Your task to perform on an android device: change the clock style Image 0: 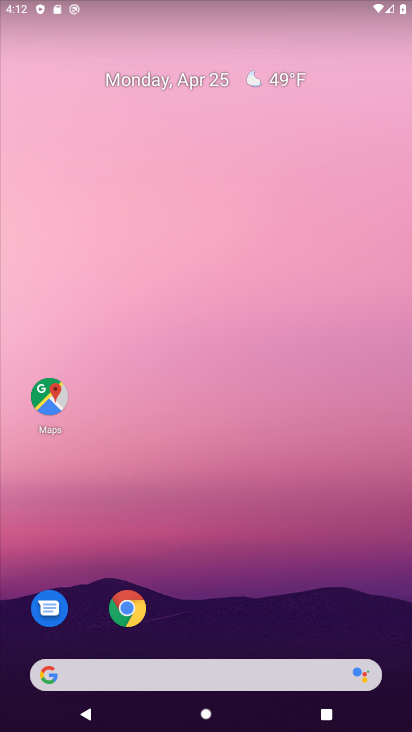
Step 0: drag from (259, 633) to (313, 448)
Your task to perform on an android device: change the clock style Image 1: 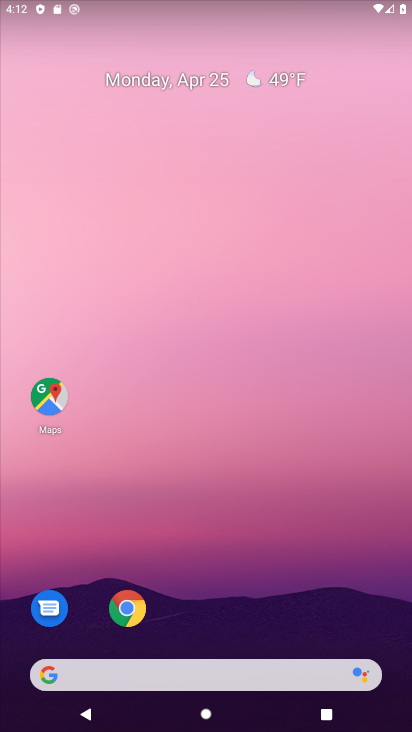
Step 1: drag from (195, 580) to (274, 270)
Your task to perform on an android device: change the clock style Image 2: 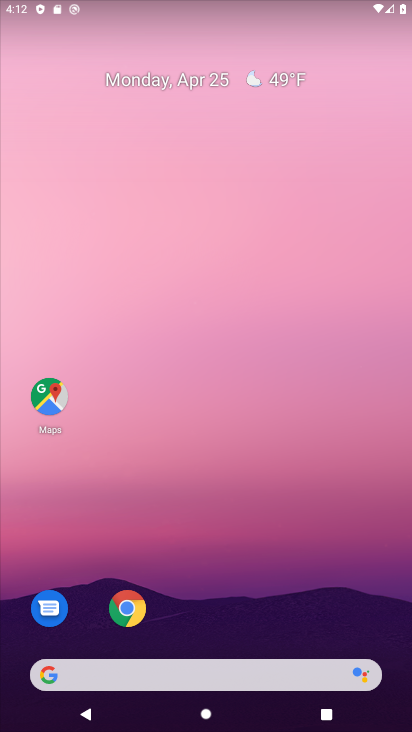
Step 2: drag from (195, 562) to (240, 89)
Your task to perform on an android device: change the clock style Image 3: 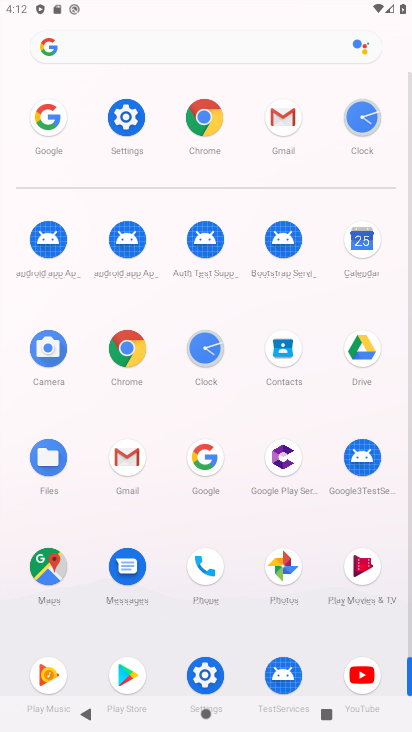
Step 3: click (209, 356)
Your task to perform on an android device: change the clock style Image 4: 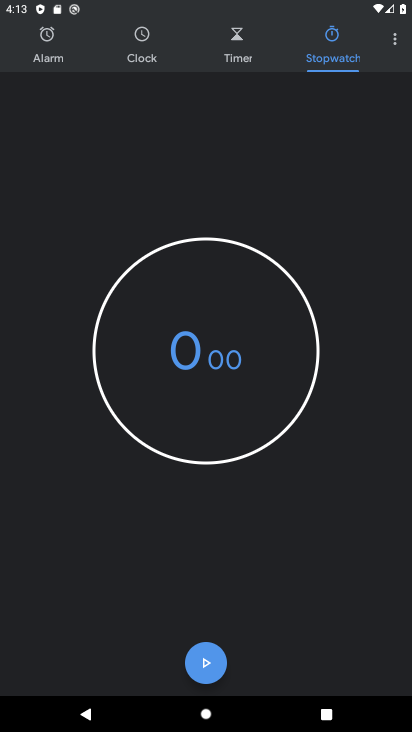
Step 4: click (396, 48)
Your task to perform on an android device: change the clock style Image 5: 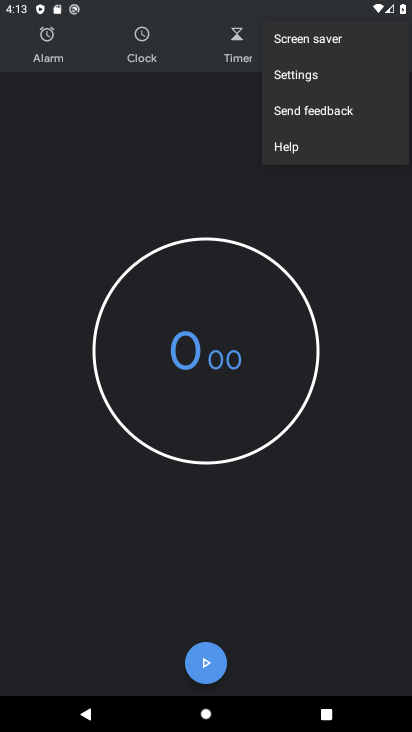
Step 5: click (291, 83)
Your task to perform on an android device: change the clock style Image 6: 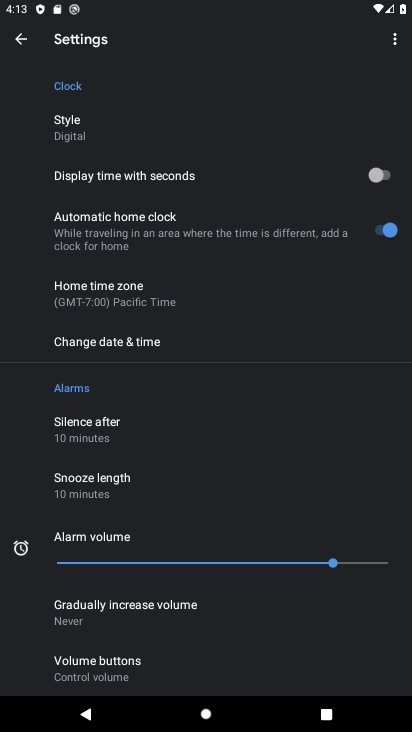
Step 6: click (145, 132)
Your task to perform on an android device: change the clock style Image 7: 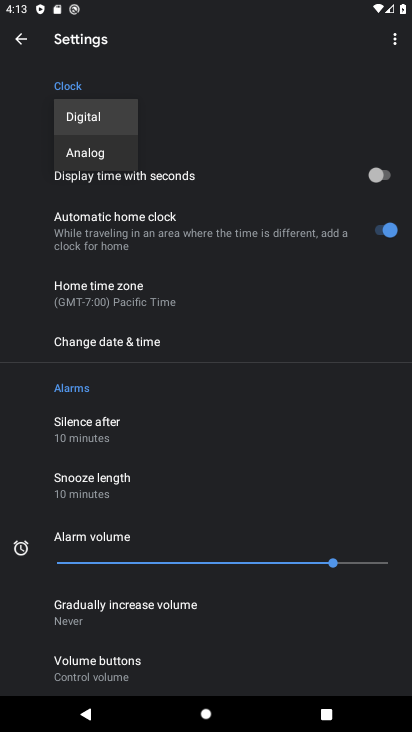
Step 7: click (121, 157)
Your task to perform on an android device: change the clock style Image 8: 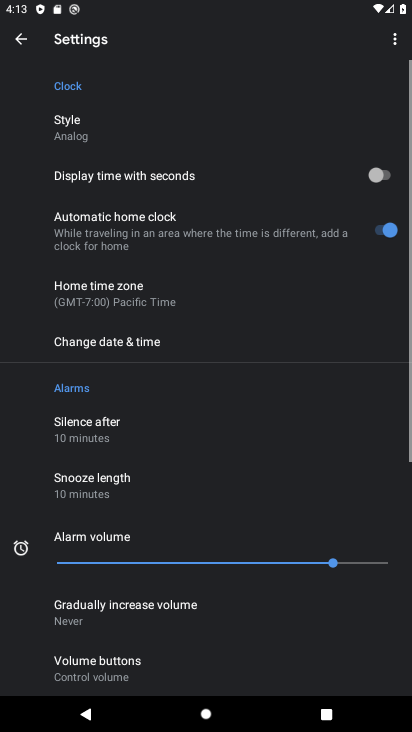
Step 8: task complete